Your task to perform on an android device: Go to sound settings Image 0: 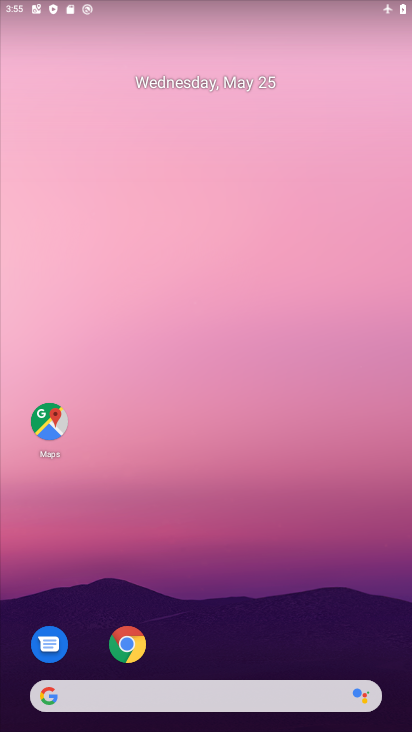
Step 0: drag from (234, 640) to (236, 61)
Your task to perform on an android device: Go to sound settings Image 1: 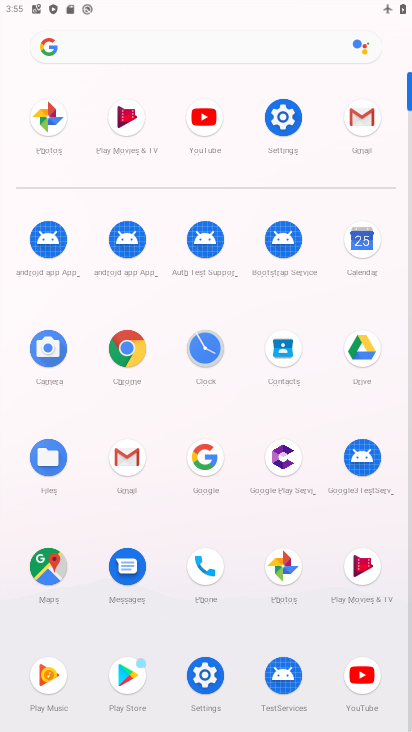
Step 1: click (286, 128)
Your task to perform on an android device: Go to sound settings Image 2: 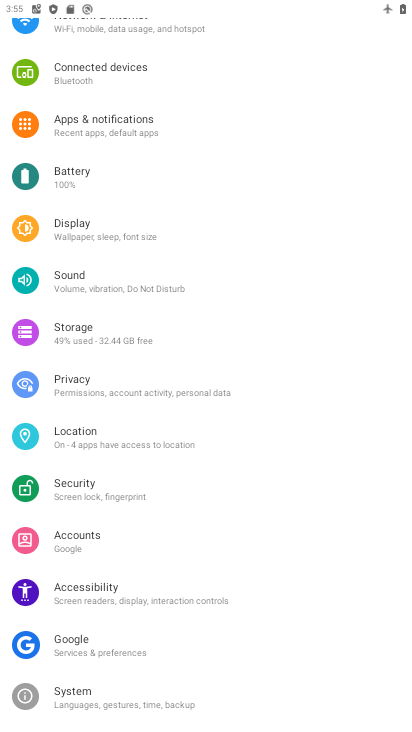
Step 2: click (43, 283)
Your task to perform on an android device: Go to sound settings Image 3: 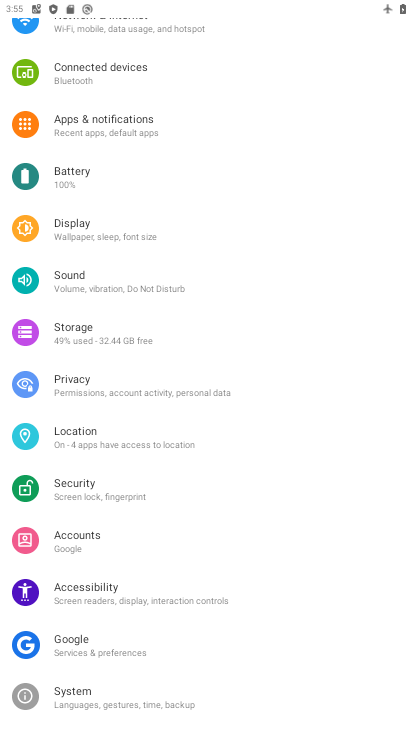
Step 3: click (67, 290)
Your task to perform on an android device: Go to sound settings Image 4: 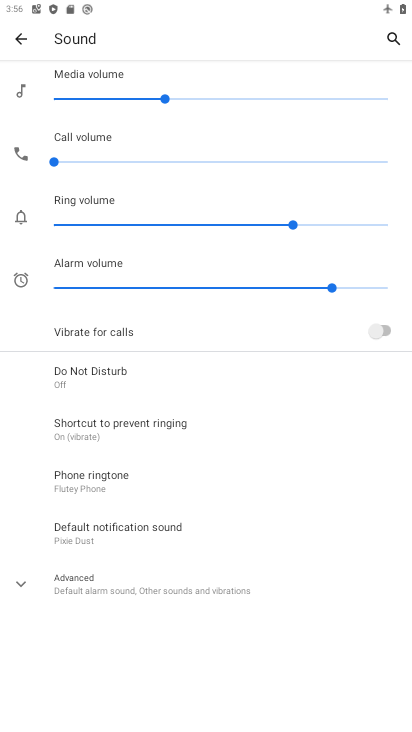
Step 4: task complete